Your task to perform on an android device: star an email in the gmail app Image 0: 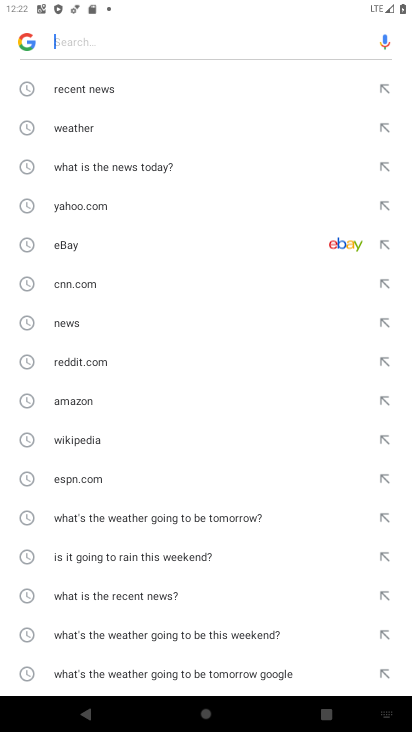
Step 0: press home button
Your task to perform on an android device: star an email in the gmail app Image 1: 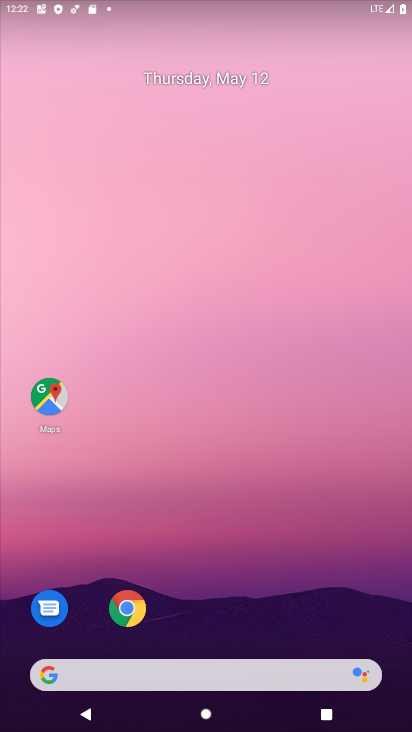
Step 1: drag from (216, 613) to (195, 0)
Your task to perform on an android device: star an email in the gmail app Image 2: 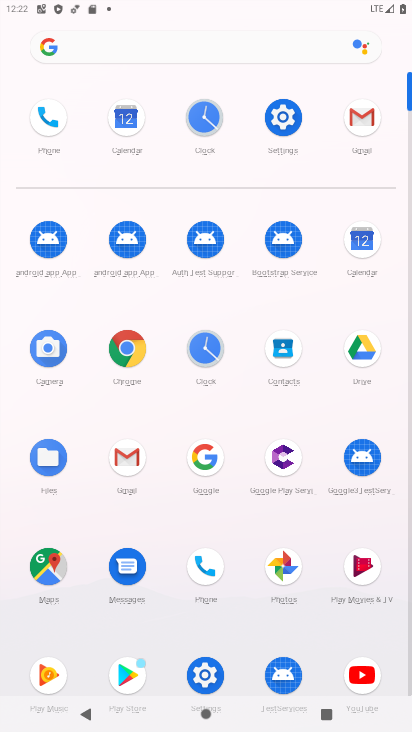
Step 2: click (350, 120)
Your task to perform on an android device: star an email in the gmail app Image 3: 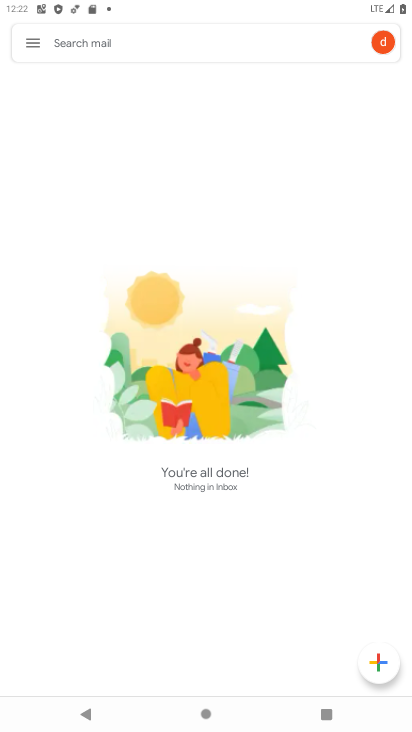
Step 3: click (34, 41)
Your task to perform on an android device: star an email in the gmail app Image 4: 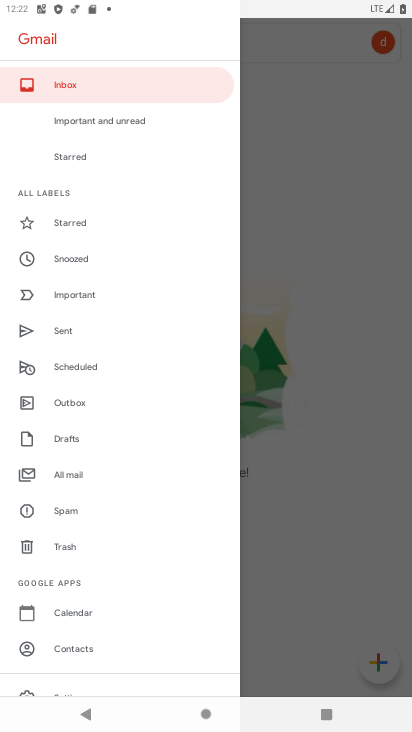
Step 4: click (65, 465)
Your task to perform on an android device: star an email in the gmail app Image 5: 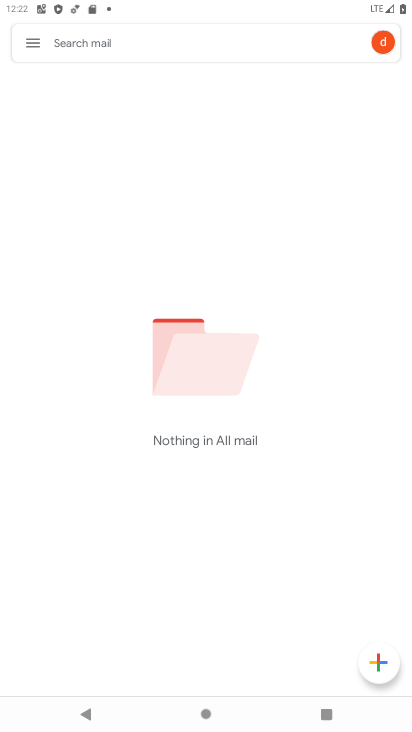
Step 5: task complete